Your task to perform on an android device: What's on my calendar tomorrow? Image 0: 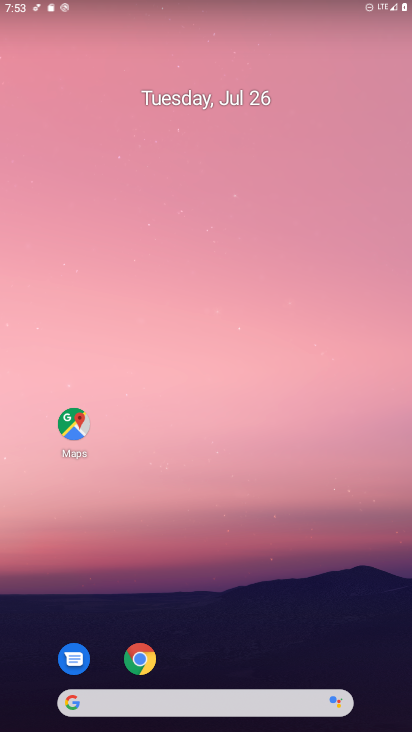
Step 0: drag from (191, 661) to (194, 240)
Your task to perform on an android device: What's on my calendar tomorrow? Image 1: 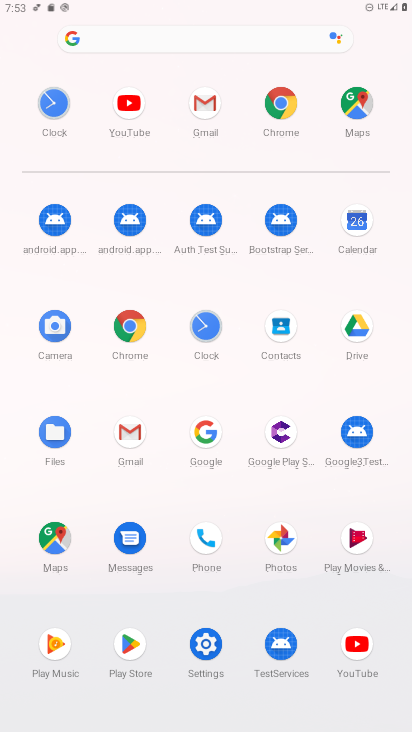
Step 1: click (355, 216)
Your task to perform on an android device: What's on my calendar tomorrow? Image 2: 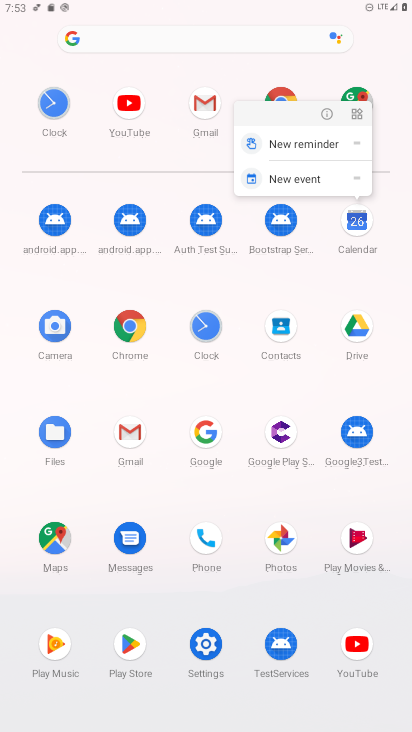
Step 2: click (326, 118)
Your task to perform on an android device: What's on my calendar tomorrow? Image 3: 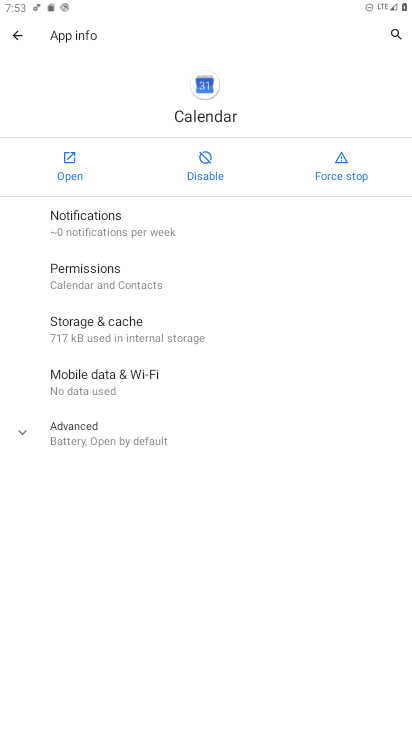
Step 3: click (75, 179)
Your task to perform on an android device: What's on my calendar tomorrow? Image 4: 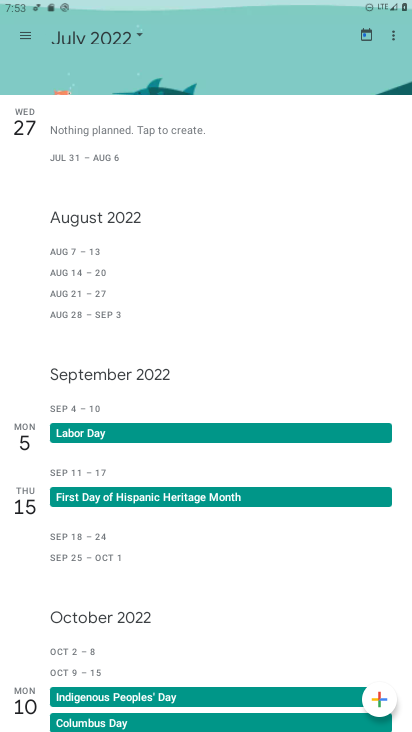
Step 4: click (124, 35)
Your task to perform on an android device: What's on my calendar tomorrow? Image 5: 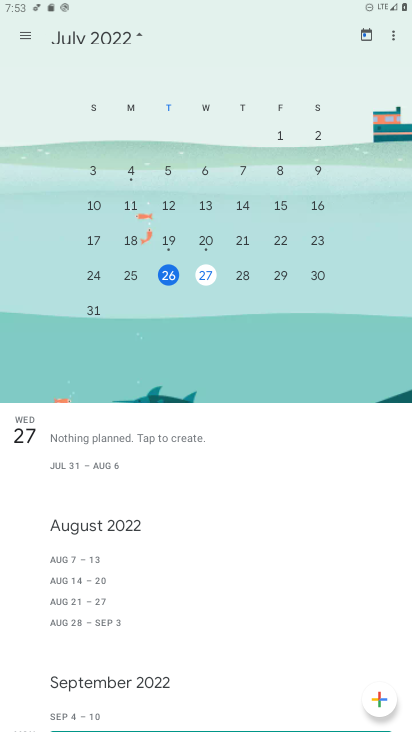
Step 5: click (205, 275)
Your task to perform on an android device: What's on my calendar tomorrow? Image 6: 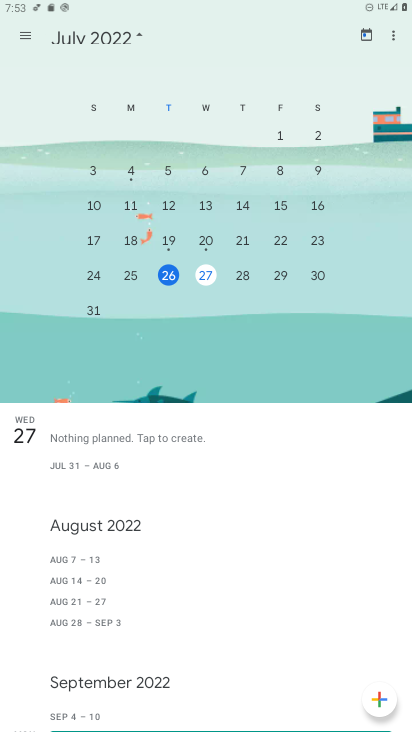
Step 6: task complete